Your task to perform on an android device: Search for Mexican restaurants on Maps Image 0: 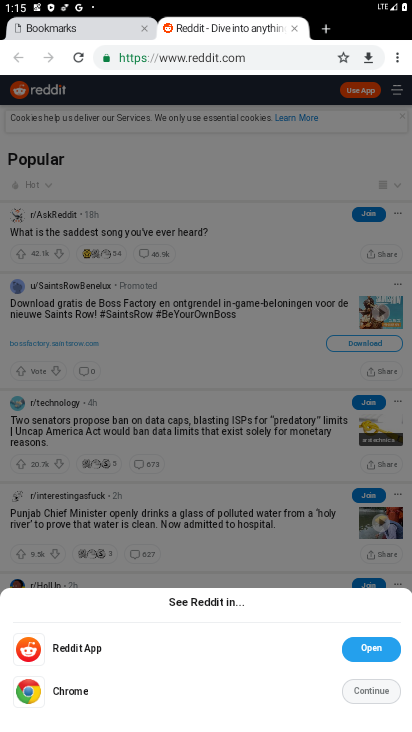
Step 0: press home button
Your task to perform on an android device: Search for Mexican restaurants on Maps Image 1: 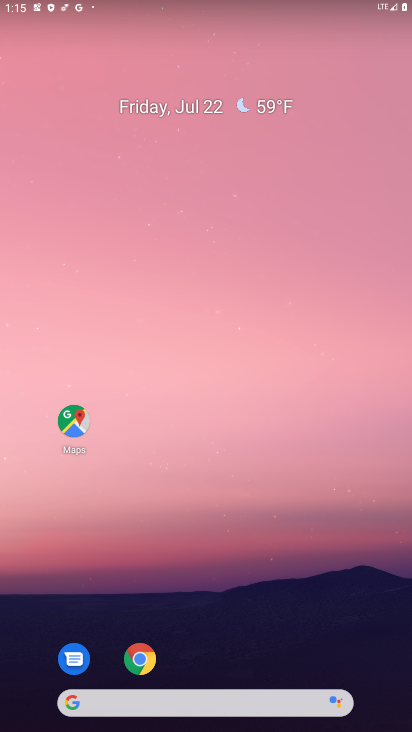
Step 1: drag from (270, 563) to (300, 6)
Your task to perform on an android device: Search for Mexican restaurants on Maps Image 2: 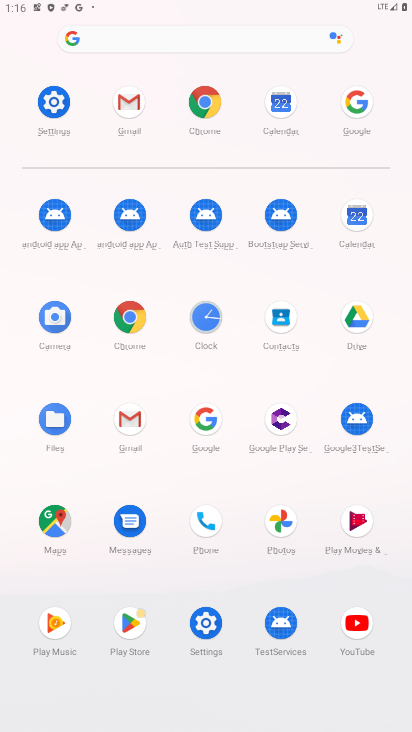
Step 2: click (57, 535)
Your task to perform on an android device: Search for Mexican restaurants on Maps Image 3: 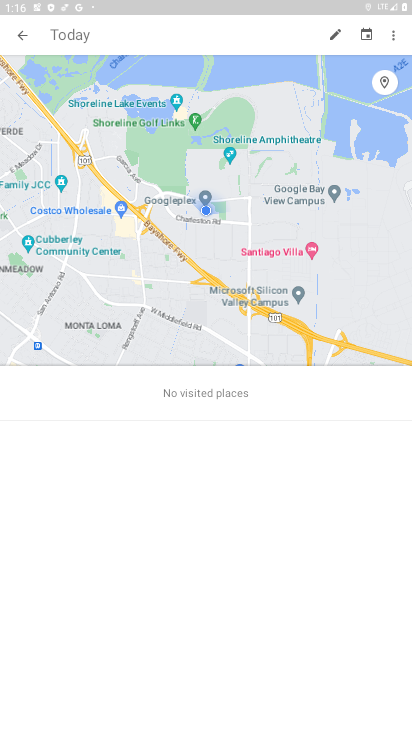
Step 3: click (20, 35)
Your task to perform on an android device: Search for Mexican restaurants on Maps Image 4: 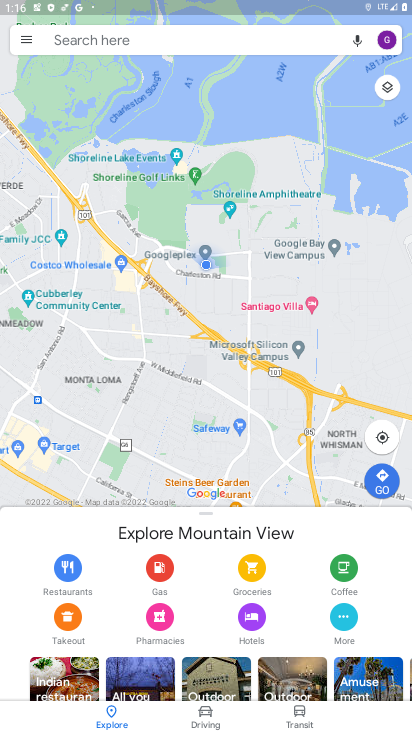
Step 4: click (153, 29)
Your task to perform on an android device: Search for Mexican restaurants on Maps Image 5: 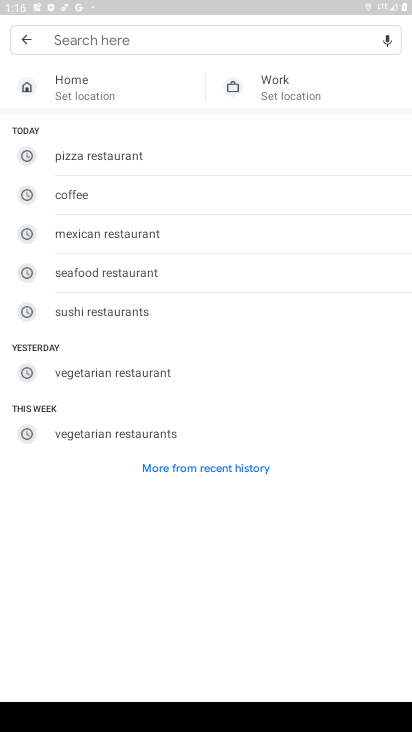
Step 5: click (120, 231)
Your task to perform on an android device: Search for Mexican restaurants on Maps Image 6: 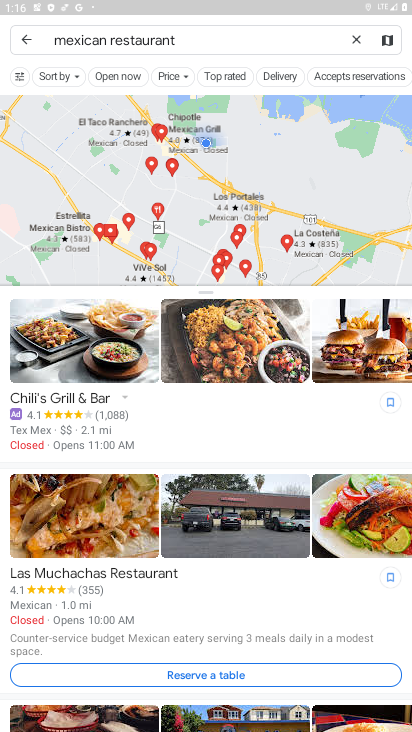
Step 6: task complete